Your task to perform on an android device: change the clock style Image 0: 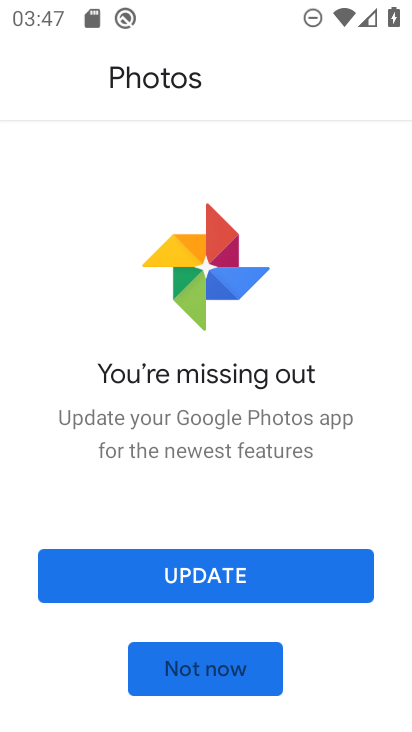
Step 0: press home button
Your task to perform on an android device: change the clock style Image 1: 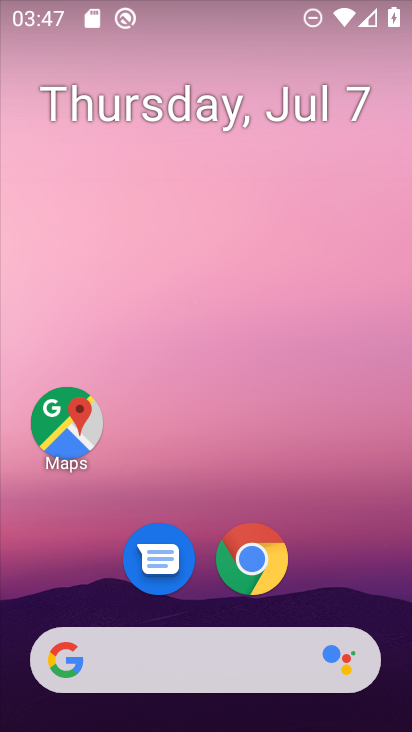
Step 1: drag from (356, 603) to (352, 204)
Your task to perform on an android device: change the clock style Image 2: 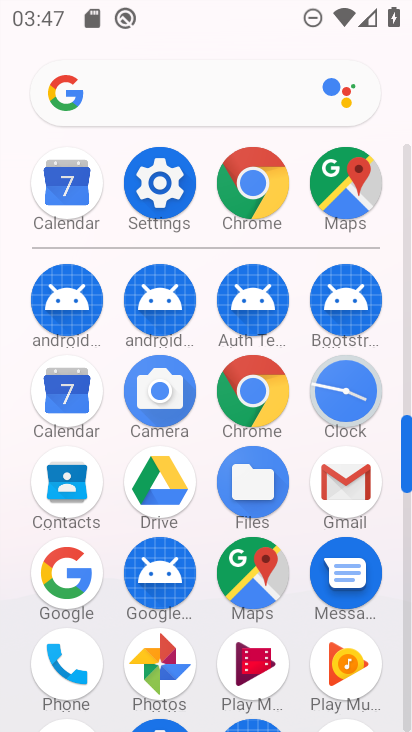
Step 2: click (350, 386)
Your task to perform on an android device: change the clock style Image 3: 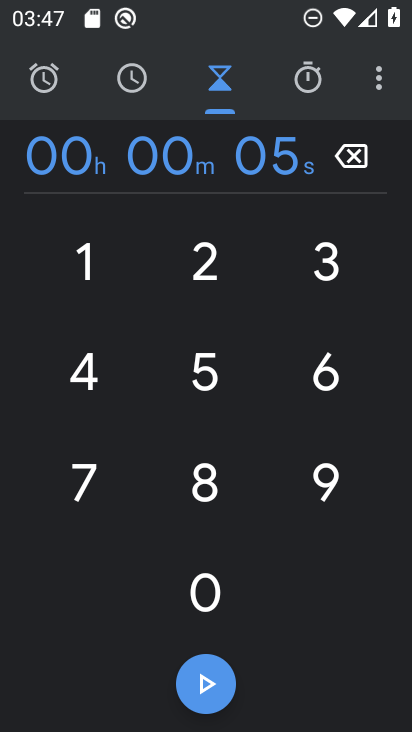
Step 3: click (377, 84)
Your task to perform on an android device: change the clock style Image 4: 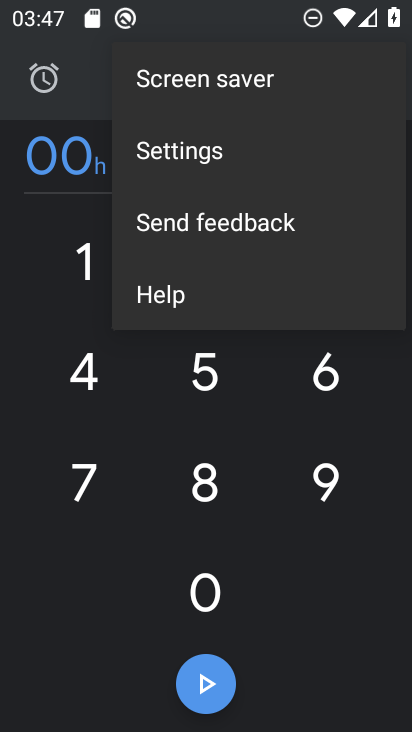
Step 4: click (231, 163)
Your task to perform on an android device: change the clock style Image 5: 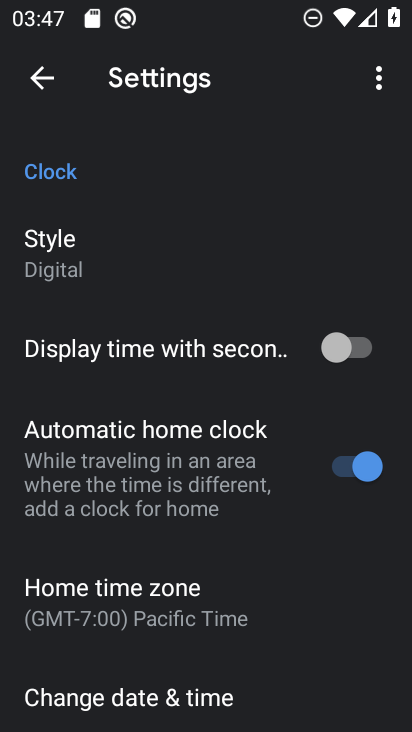
Step 5: drag from (279, 286) to (284, 218)
Your task to perform on an android device: change the clock style Image 6: 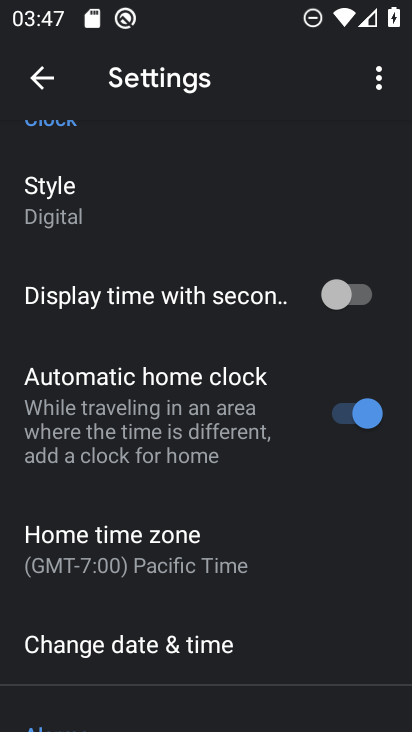
Step 6: drag from (300, 327) to (304, 252)
Your task to perform on an android device: change the clock style Image 7: 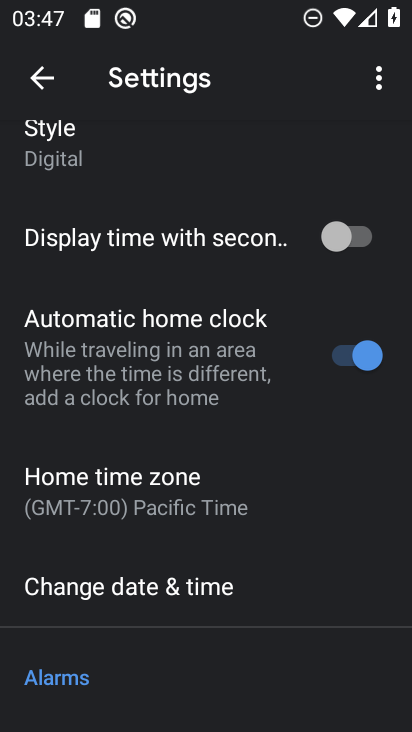
Step 7: drag from (296, 371) to (302, 269)
Your task to perform on an android device: change the clock style Image 8: 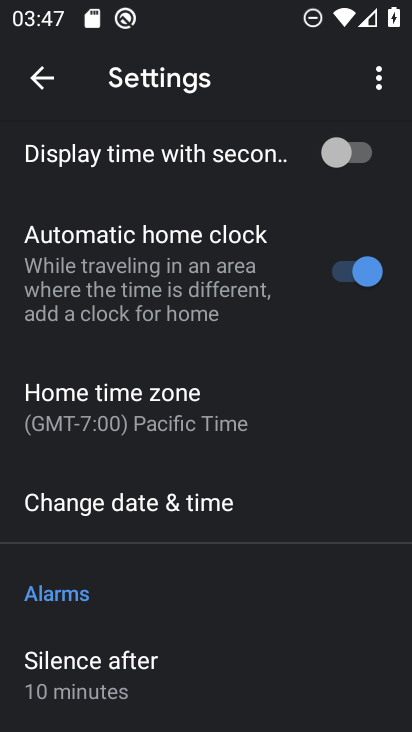
Step 8: drag from (297, 384) to (312, 298)
Your task to perform on an android device: change the clock style Image 9: 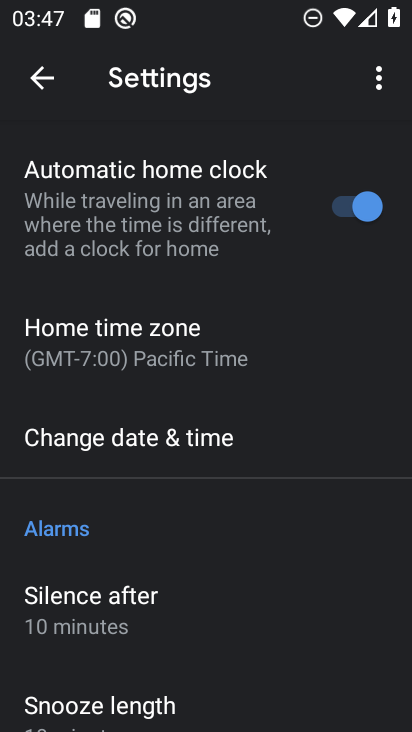
Step 9: drag from (371, 534) to (383, 431)
Your task to perform on an android device: change the clock style Image 10: 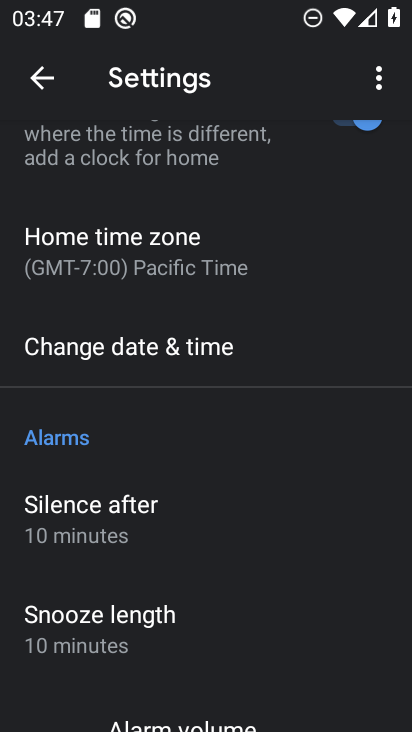
Step 10: drag from (362, 543) to (361, 405)
Your task to perform on an android device: change the clock style Image 11: 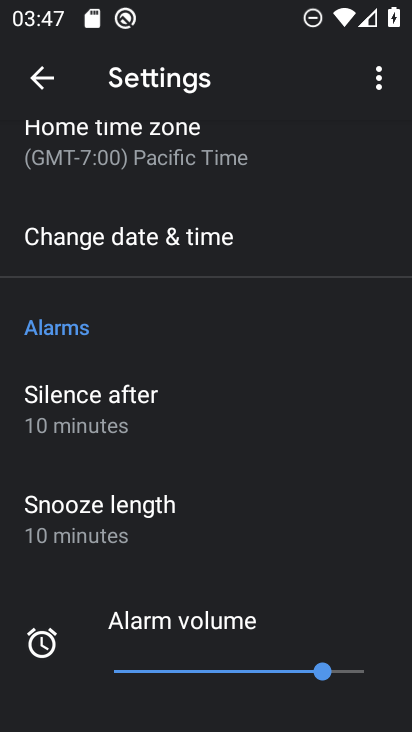
Step 11: drag from (345, 526) to (355, 411)
Your task to perform on an android device: change the clock style Image 12: 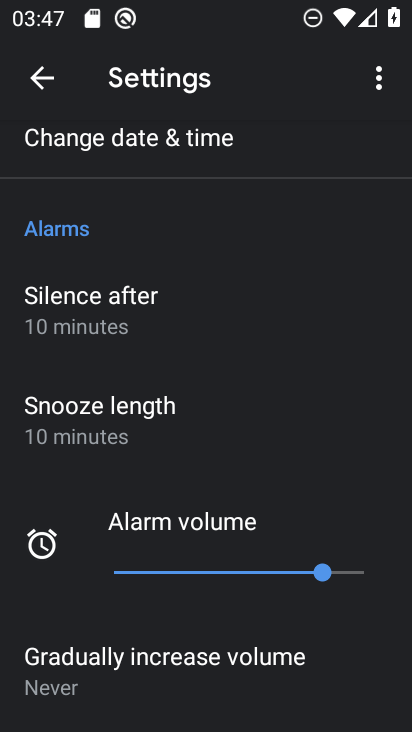
Step 12: drag from (359, 572) to (364, 427)
Your task to perform on an android device: change the clock style Image 13: 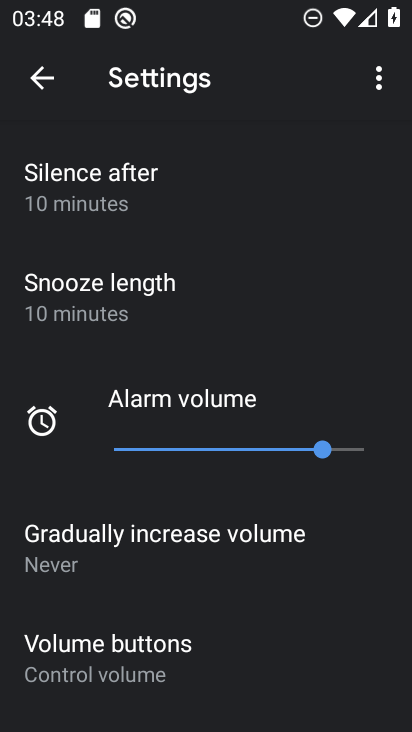
Step 13: drag from (352, 541) to (357, 348)
Your task to perform on an android device: change the clock style Image 14: 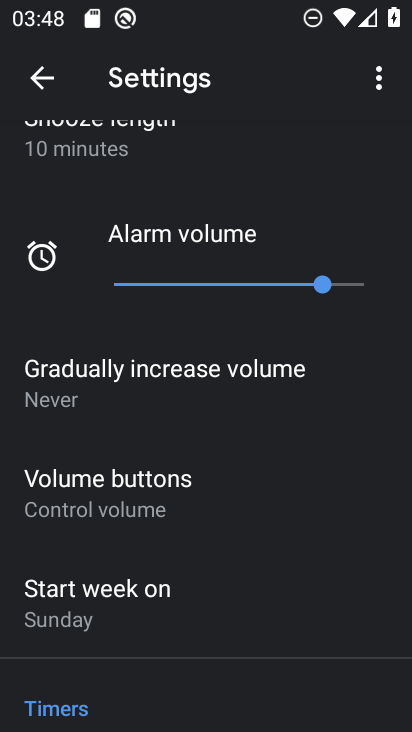
Step 14: drag from (333, 546) to (350, 359)
Your task to perform on an android device: change the clock style Image 15: 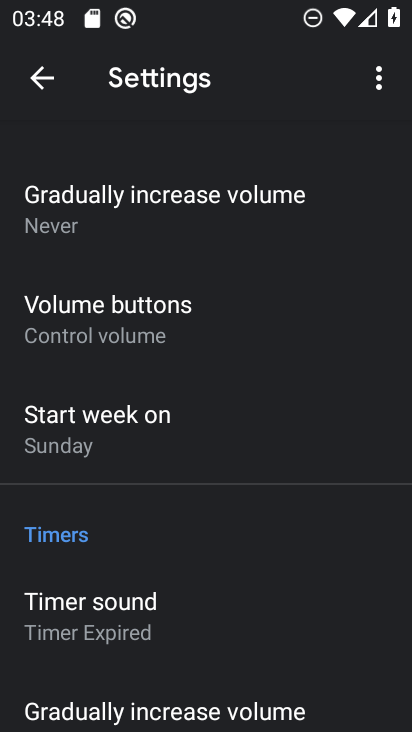
Step 15: drag from (338, 556) to (349, 392)
Your task to perform on an android device: change the clock style Image 16: 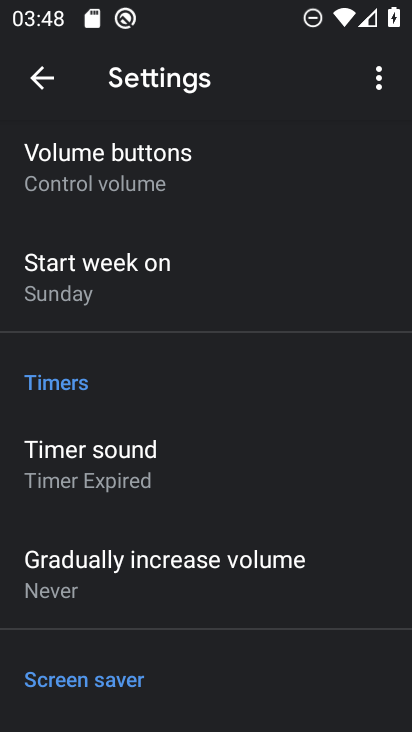
Step 16: drag from (337, 472) to (343, 366)
Your task to perform on an android device: change the clock style Image 17: 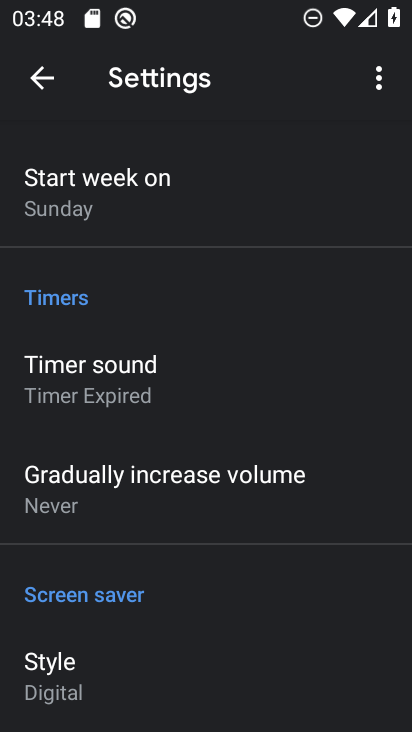
Step 17: drag from (368, 300) to (404, 641)
Your task to perform on an android device: change the clock style Image 18: 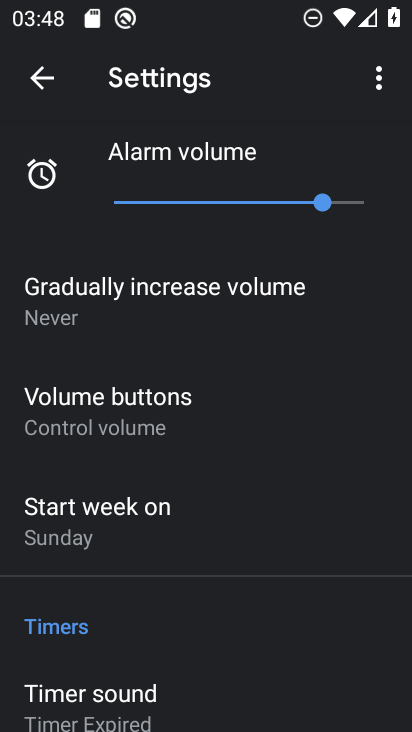
Step 18: drag from (326, 299) to (333, 384)
Your task to perform on an android device: change the clock style Image 19: 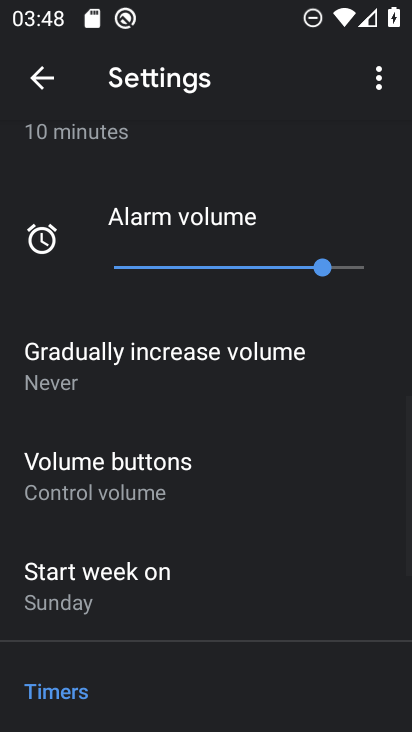
Step 19: drag from (364, 244) to (359, 383)
Your task to perform on an android device: change the clock style Image 20: 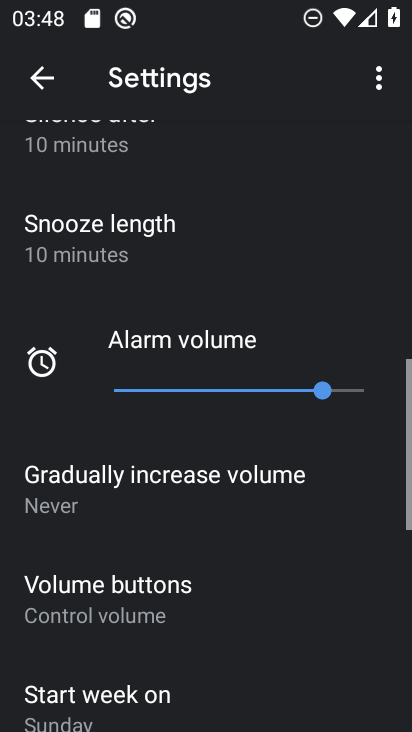
Step 20: drag from (372, 222) to (361, 369)
Your task to perform on an android device: change the clock style Image 21: 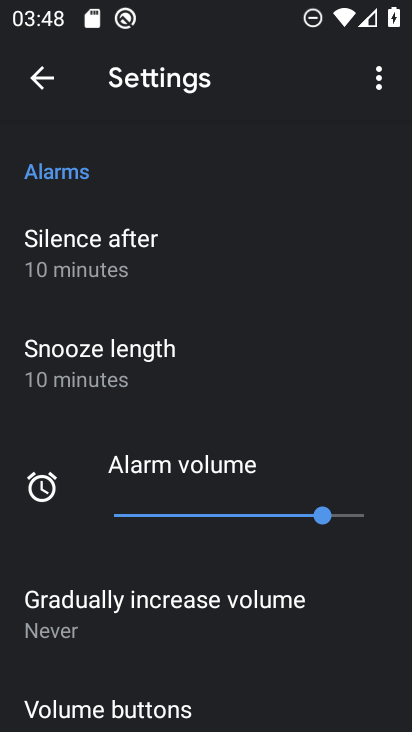
Step 21: drag from (354, 213) to (345, 358)
Your task to perform on an android device: change the clock style Image 22: 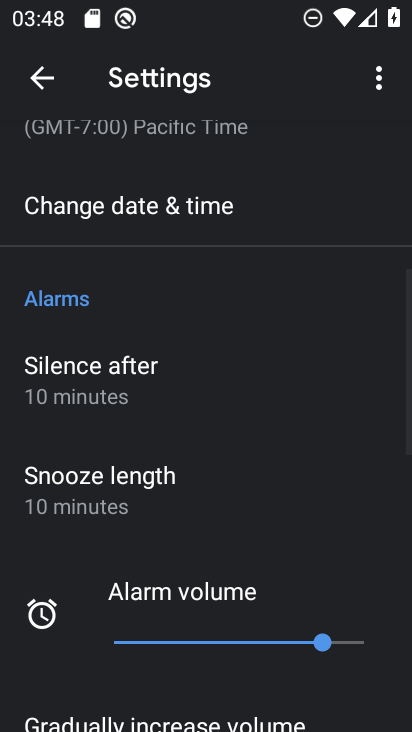
Step 22: drag from (348, 234) to (350, 379)
Your task to perform on an android device: change the clock style Image 23: 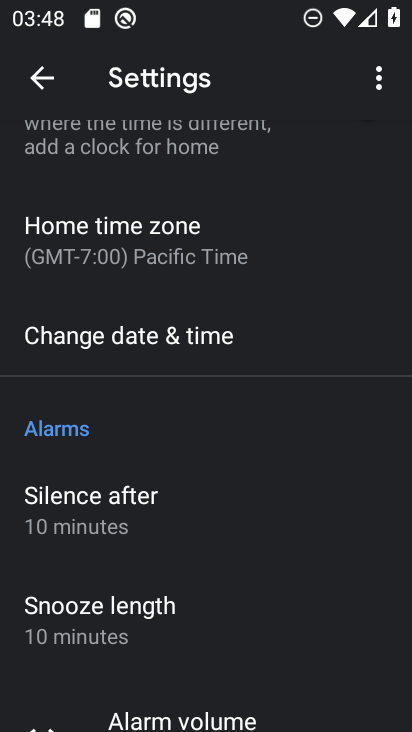
Step 23: drag from (339, 200) to (336, 379)
Your task to perform on an android device: change the clock style Image 24: 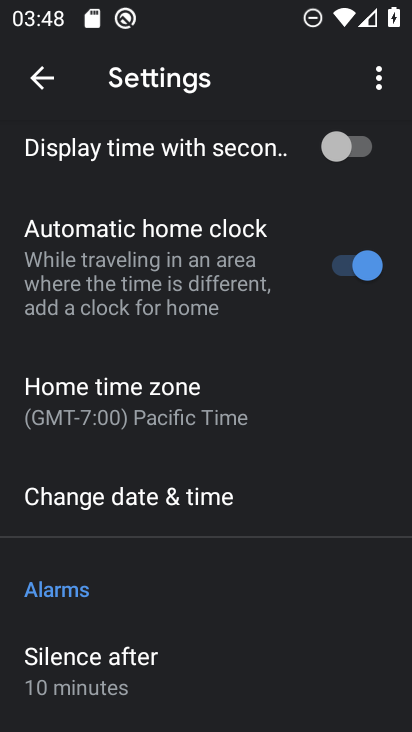
Step 24: drag from (315, 188) to (298, 361)
Your task to perform on an android device: change the clock style Image 25: 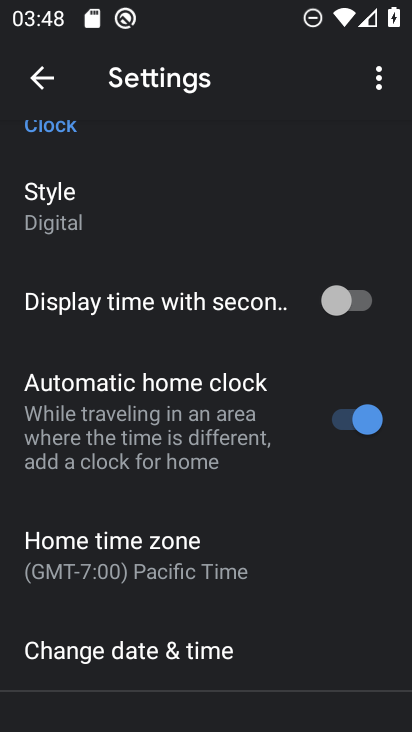
Step 25: click (101, 211)
Your task to perform on an android device: change the clock style Image 26: 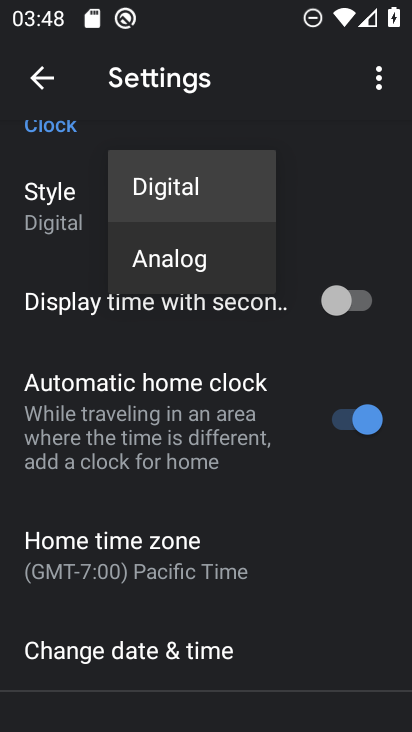
Step 26: click (145, 248)
Your task to perform on an android device: change the clock style Image 27: 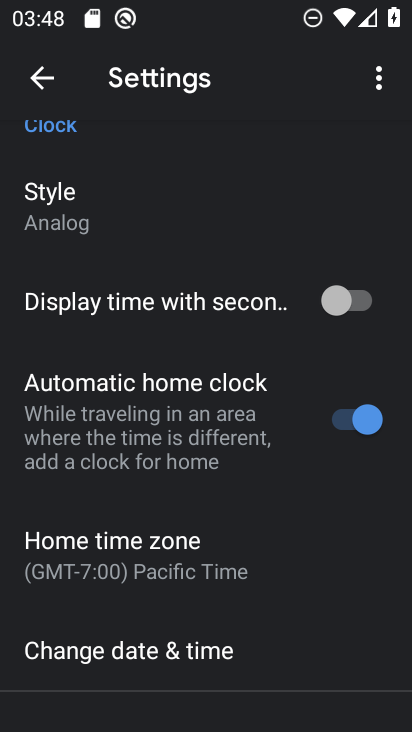
Step 27: task complete